Your task to perform on an android device: turn notification dots on Image 0: 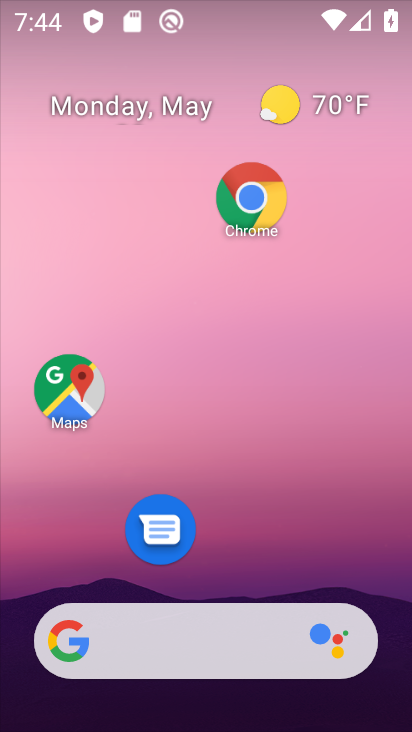
Step 0: drag from (221, 571) to (225, 76)
Your task to perform on an android device: turn notification dots on Image 1: 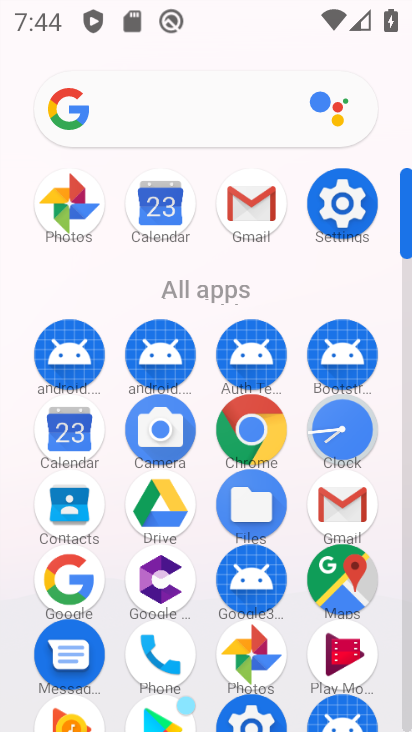
Step 1: click (341, 199)
Your task to perform on an android device: turn notification dots on Image 2: 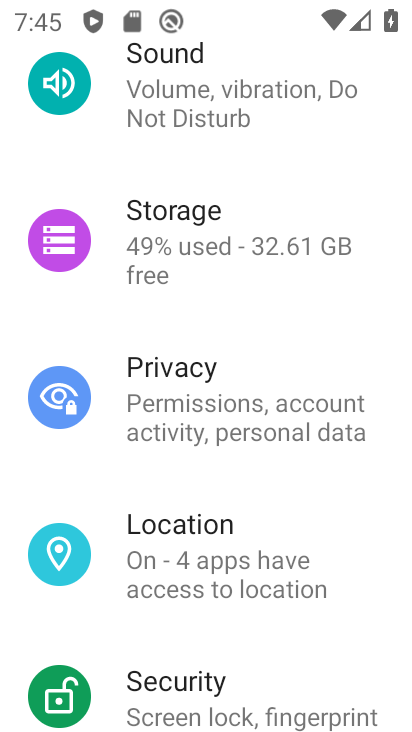
Step 2: drag from (208, 129) to (234, 465)
Your task to perform on an android device: turn notification dots on Image 3: 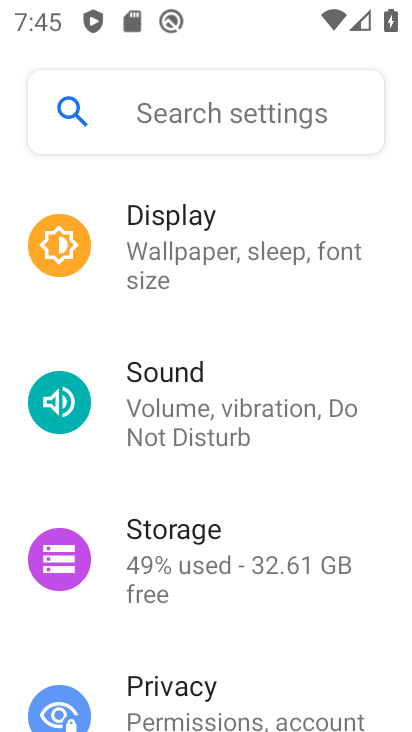
Step 3: drag from (190, 264) to (194, 594)
Your task to perform on an android device: turn notification dots on Image 4: 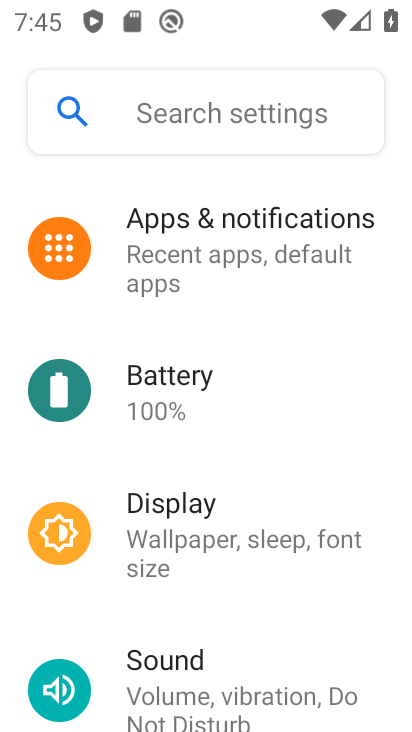
Step 4: click (176, 264)
Your task to perform on an android device: turn notification dots on Image 5: 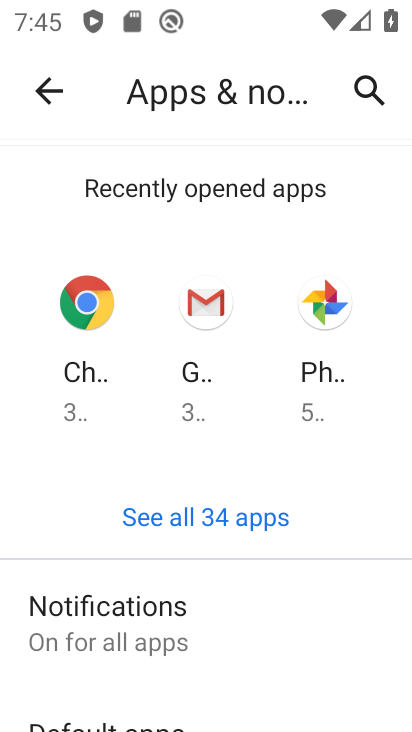
Step 5: click (219, 624)
Your task to perform on an android device: turn notification dots on Image 6: 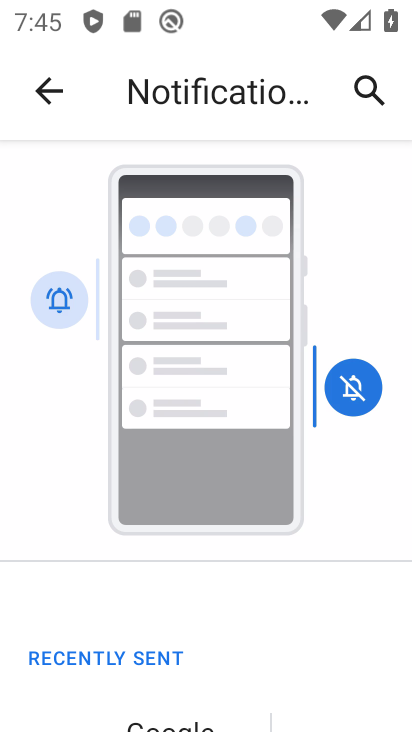
Step 6: drag from (218, 643) to (263, 213)
Your task to perform on an android device: turn notification dots on Image 7: 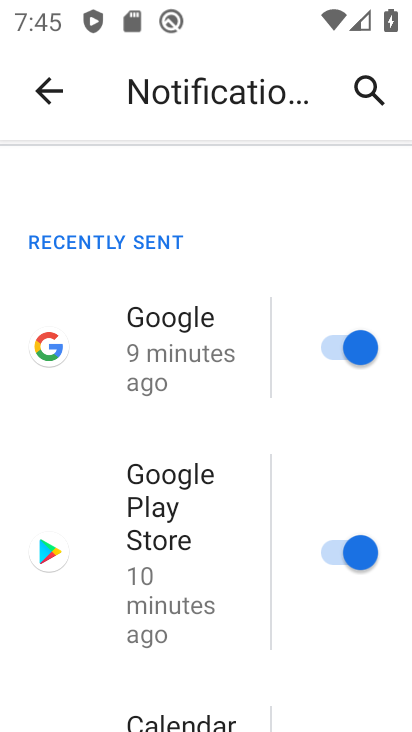
Step 7: drag from (222, 640) to (260, 249)
Your task to perform on an android device: turn notification dots on Image 8: 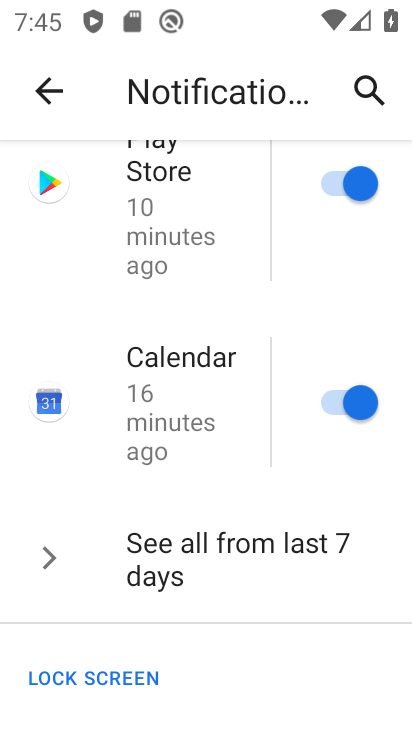
Step 8: drag from (177, 663) to (197, 234)
Your task to perform on an android device: turn notification dots on Image 9: 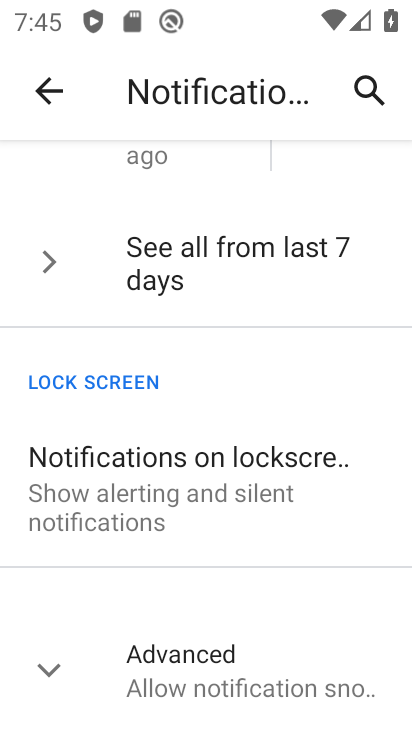
Step 9: click (50, 663)
Your task to perform on an android device: turn notification dots on Image 10: 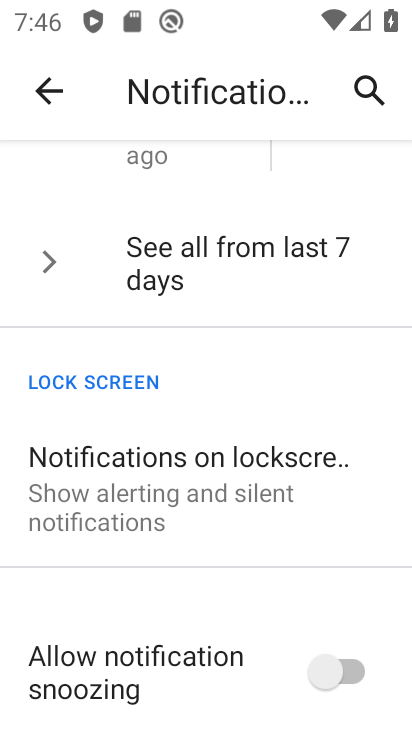
Step 10: task complete